Your task to perform on an android device: Open network settings Image 0: 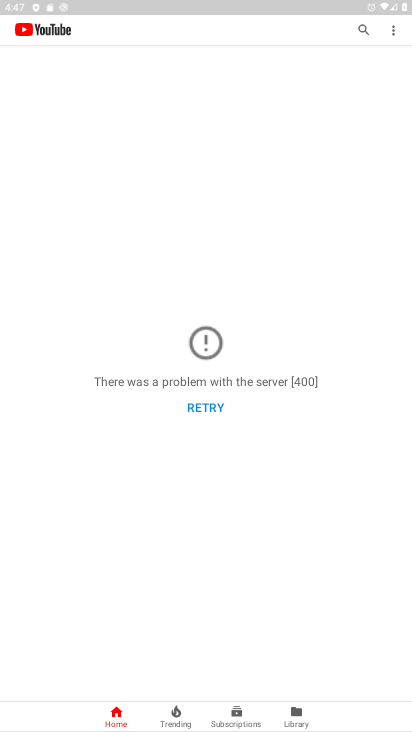
Step 0: press home button
Your task to perform on an android device: Open network settings Image 1: 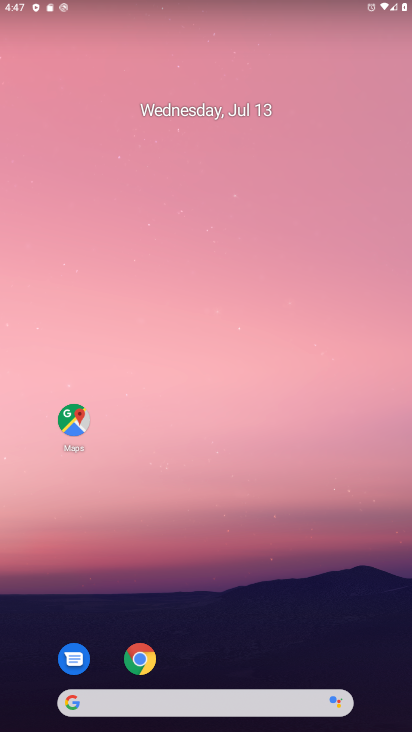
Step 1: drag from (263, 667) to (154, 110)
Your task to perform on an android device: Open network settings Image 2: 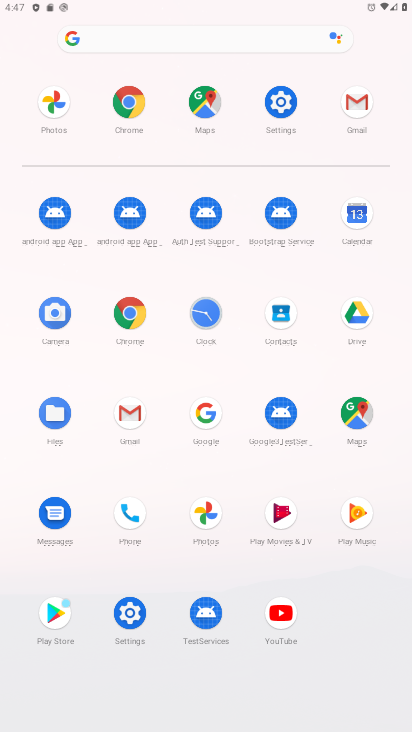
Step 2: click (273, 99)
Your task to perform on an android device: Open network settings Image 3: 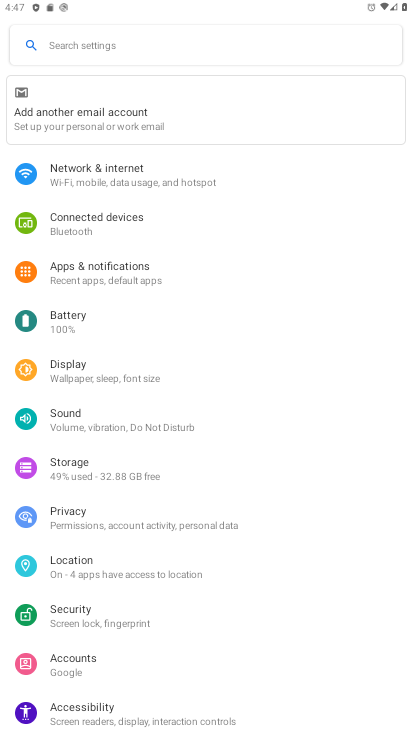
Step 3: click (87, 173)
Your task to perform on an android device: Open network settings Image 4: 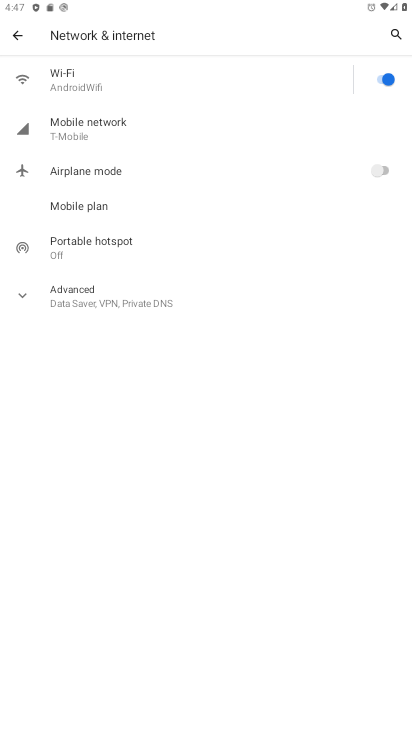
Step 4: click (139, 328)
Your task to perform on an android device: Open network settings Image 5: 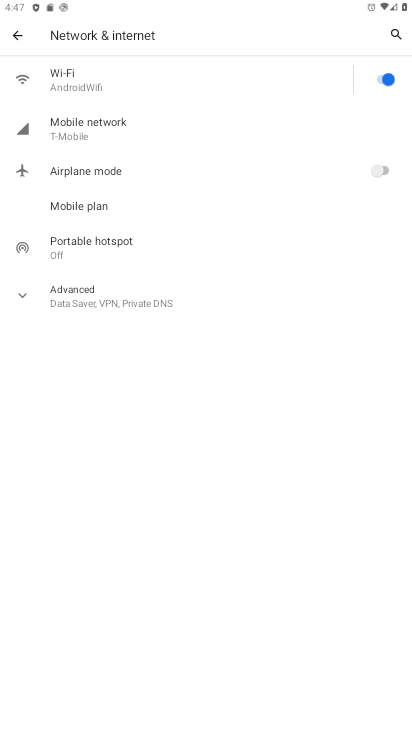
Step 5: click (139, 312)
Your task to perform on an android device: Open network settings Image 6: 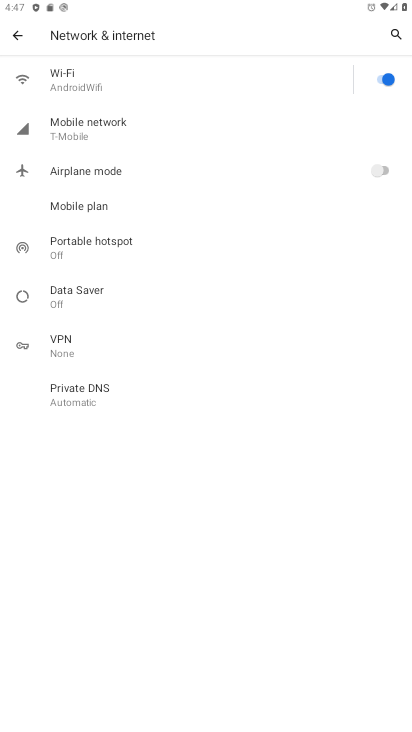
Step 6: task complete